Your task to perform on an android device: Open Yahoo.com Image 0: 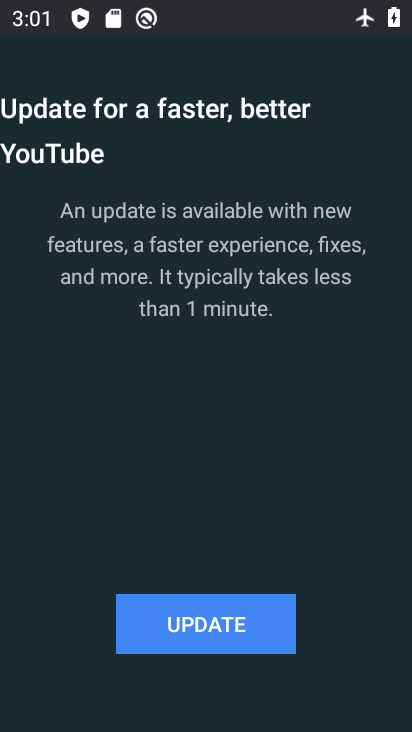
Step 0: press home button
Your task to perform on an android device: Open Yahoo.com Image 1: 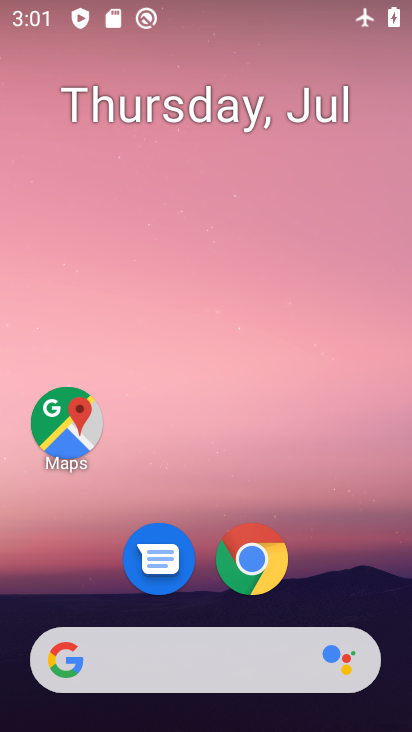
Step 1: drag from (263, 611) to (316, 155)
Your task to perform on an android device: Open Yahoo.com Image 2: 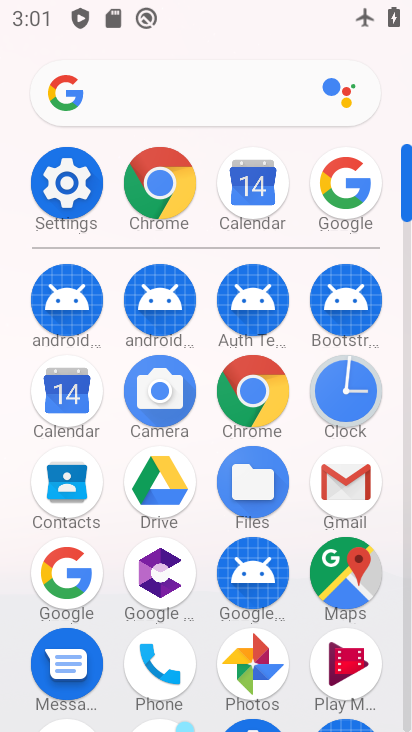
Step 2: click (161, 216)
Your task to perform on an android device: Open Yahoo.com Image 3: 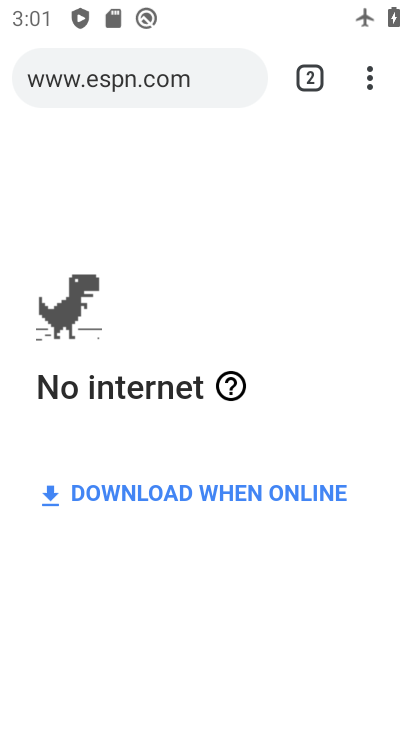
Step 3: click (172, 90)
Your task to perform on an android device: Open Yahoo.com Image 4: 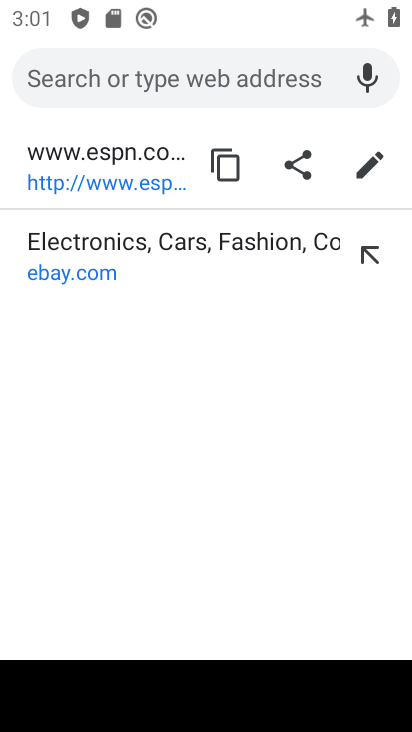
Step 4: type "yahoo"
Your task to perform on an android device: Open Yahoo.com Image 5: 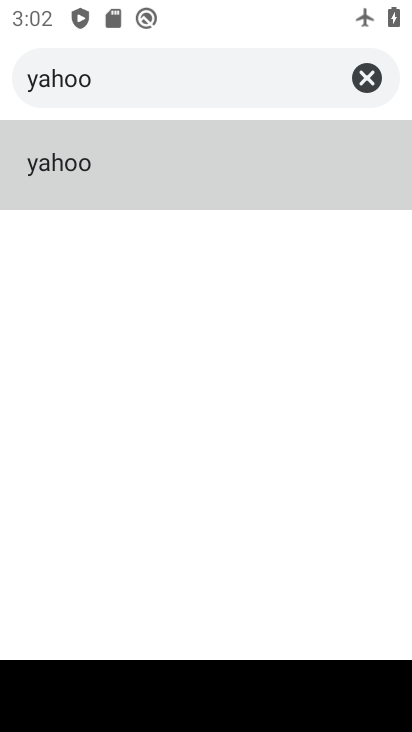
Step 5: task complete